Your task to perform on an android device: see sites visited before in the chrome app Image 0: 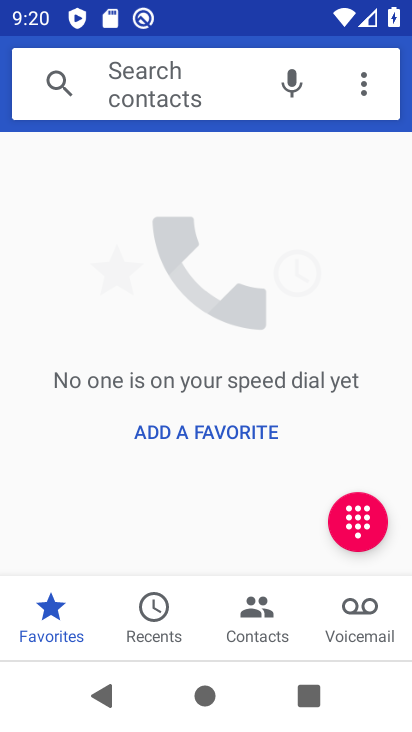
Step 0: press home button
Your task to perform on an android device: see sites visited before in the chrome app Image 1: 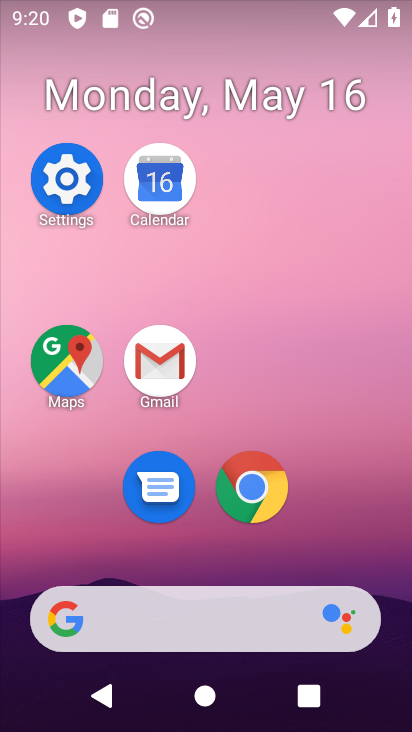
Step 1: click (239, 479)
Your task to perform on an android device: see sites visited before in the chrome app Image 2: 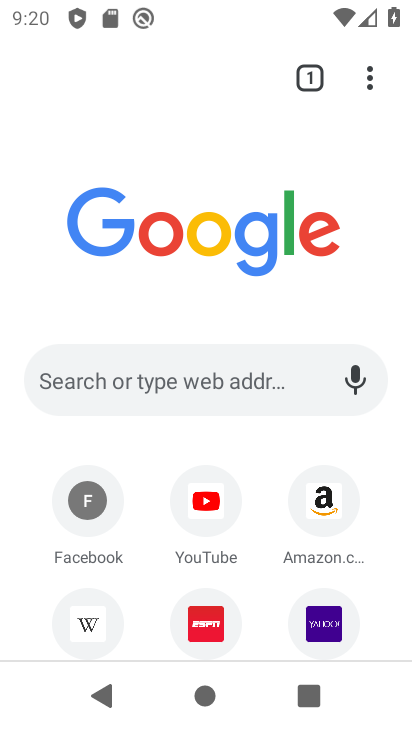
Step 2: click (384, 75)
Your task to perform on an android device: see sites visited before in the chrome app Image 3: 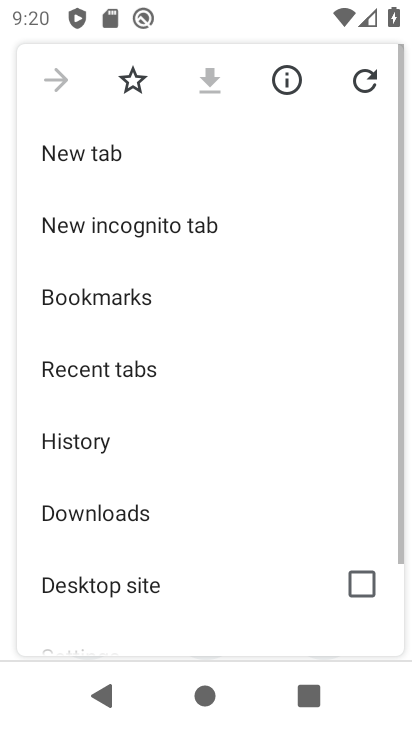
Step 3: click (197, 362)
Your task to perform on an android device: see sites visited before in the chrome app Image 4: 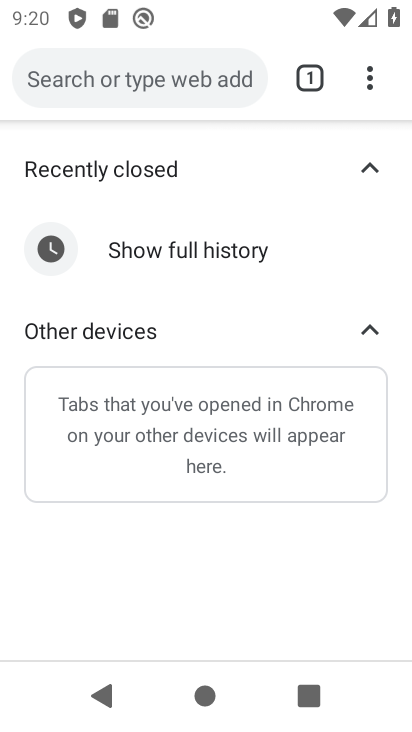
Step 4: task complete